Your task to perform on an android device: Find coffee shops on Maps Image 0: 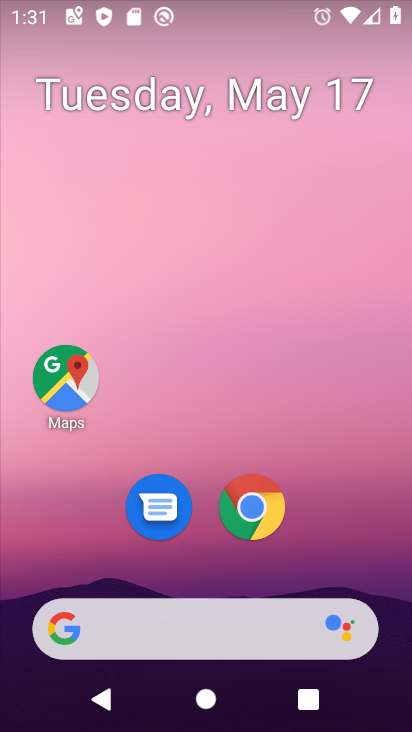
Step 0: click (48, 375)
Your task to perform on an android device: Find coffee shops on Maps Image 1: 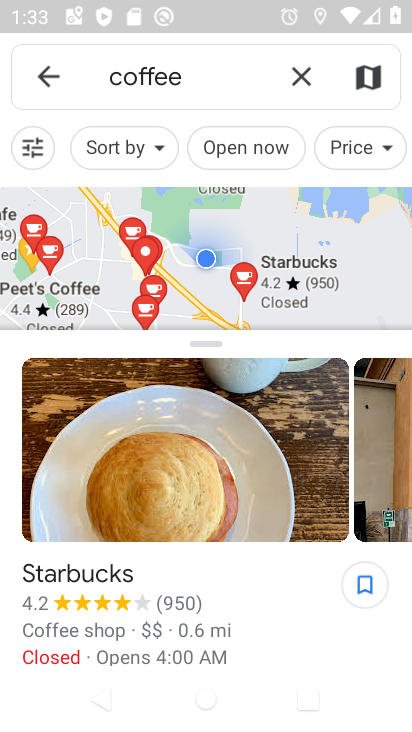
Step 1: task complete